Your task to perform on an android device: change notification settings in the gmail app Image 0: 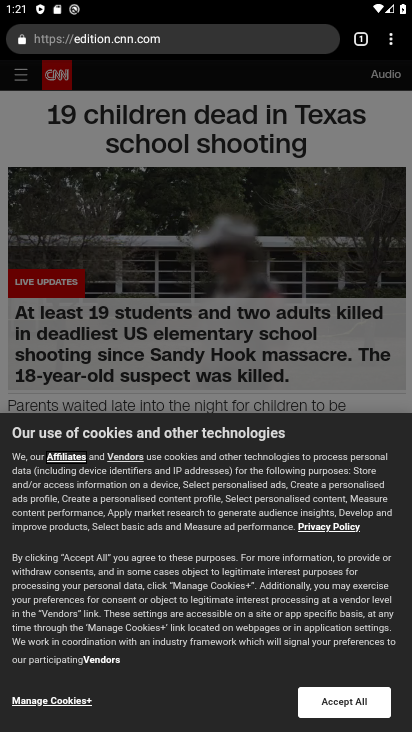
Step 0: press home button
Your task to perform on an android device: change notification settings in the gmail app Image 1: 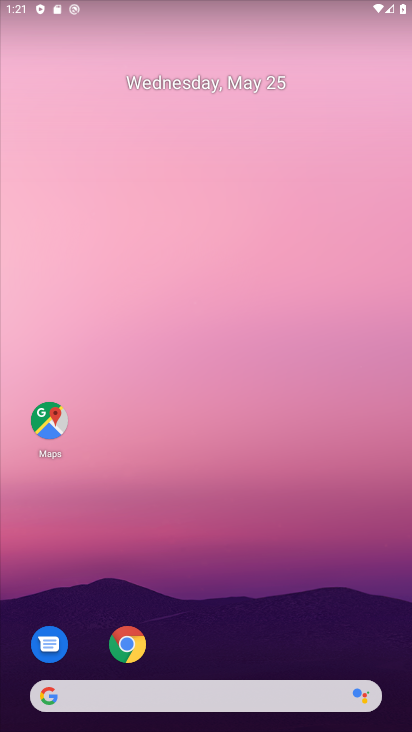
Step 1: drag from (185, 621) to (143, 55)
Your task to perform on an android device: change notification settings in the gmail app Image 2: 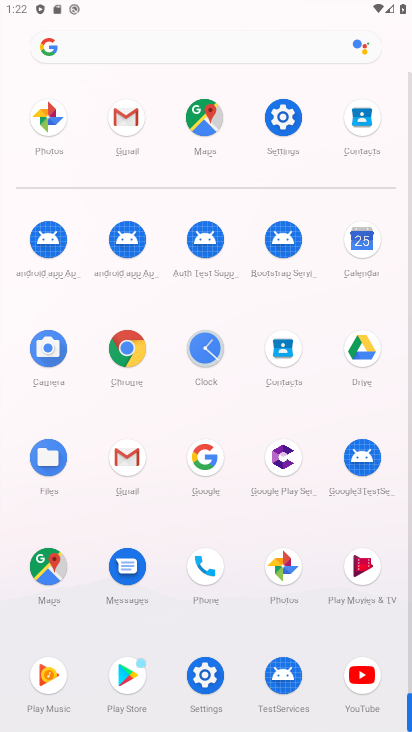
Step 2: drag from (239, 664) to (252, 248)
Your task to perform on an android device: change notification settings in the gmail app Image 3: 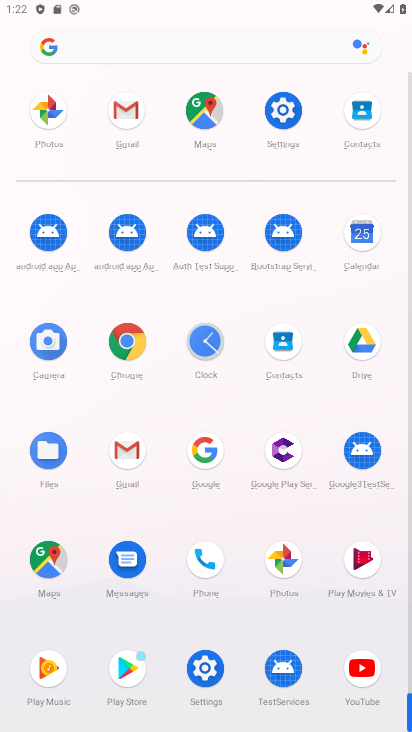
Step 3: click (114, 464)
Your task to perform on an android device: change notification settings in the gmail app Image 4: 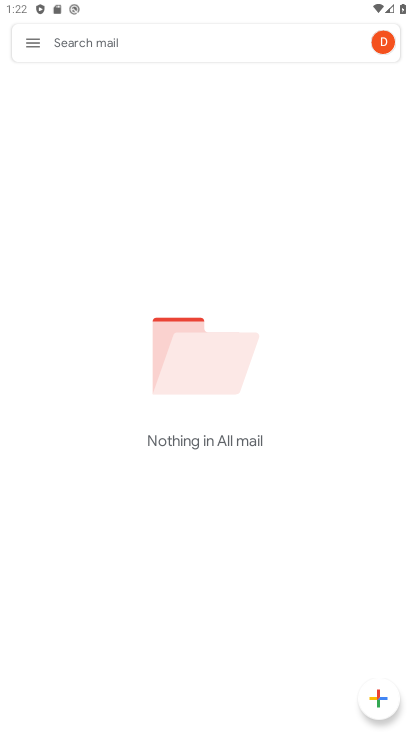
Step 4: click (38, 39)
Your task to perform on an android device: change notification settings in the gmail app Image 5: 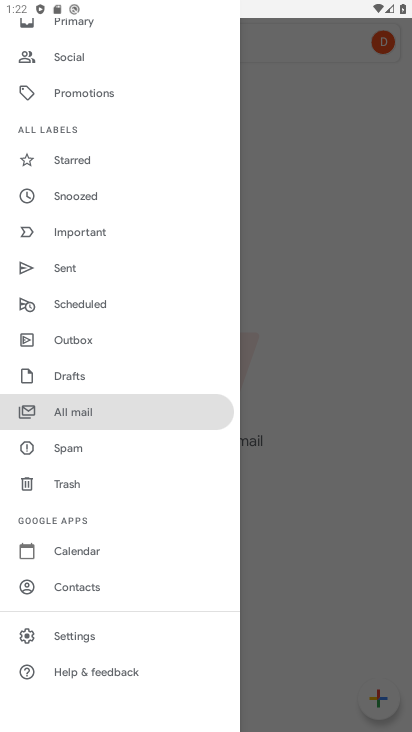
Step 5: click (73, 645)
Your task to perform on an android device: change notification settings in the gmail app Image 6: 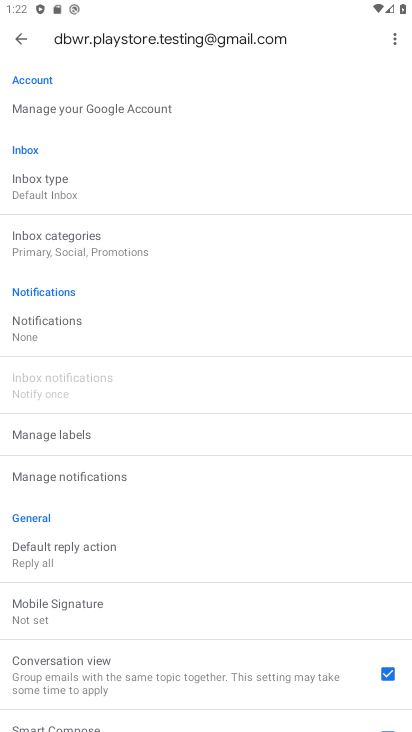
Step 6: click (60, 324)
Your task to perform on an android device: change notification settings in the gmail app Image 7: 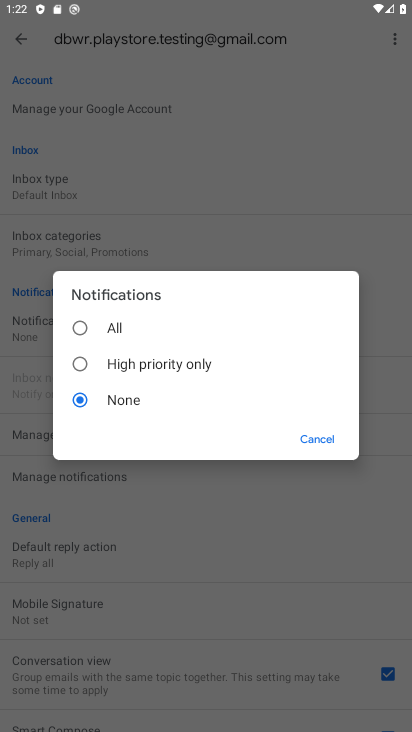
Step 7: click (77, 334)
Your task to perform on an android device: change notification settings in the gmail app Image 8: 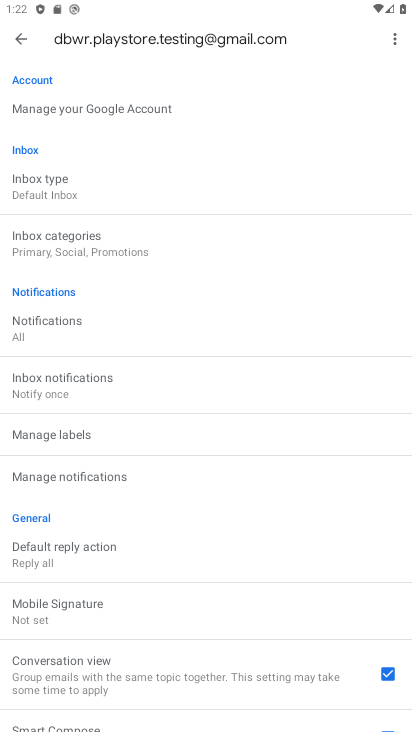
Step 8: task complete